Your task to perform on an android device: set the stopwatch Image 0: 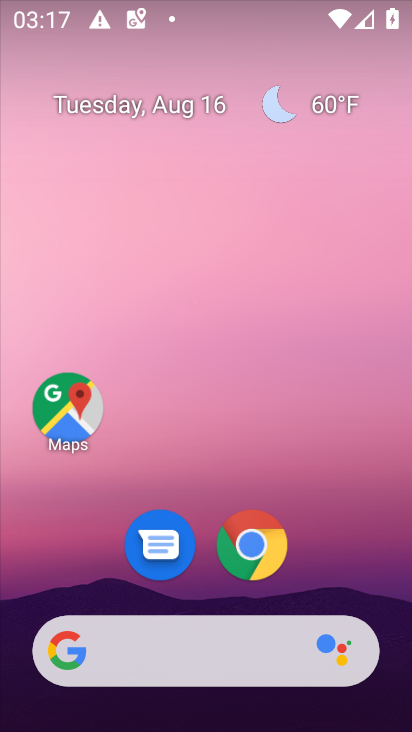
Step 0: drag from (204, 598) to (181, 247)
Your task to perform on an android device: set the stopwatch Image 1: 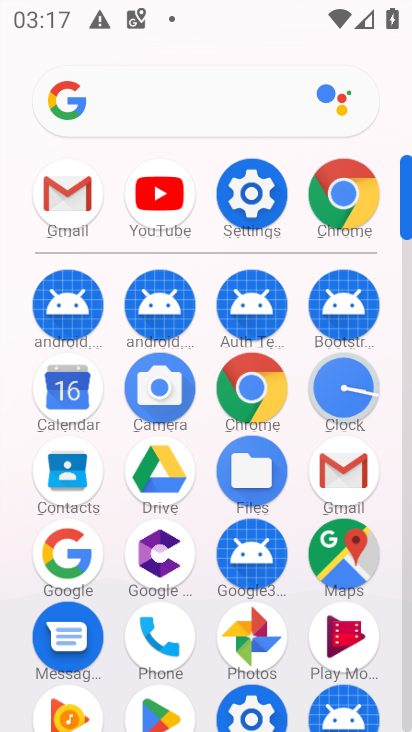
Step 1: click (340, 385)
Your task to perform on an android device: set the stopwatch Image 2: 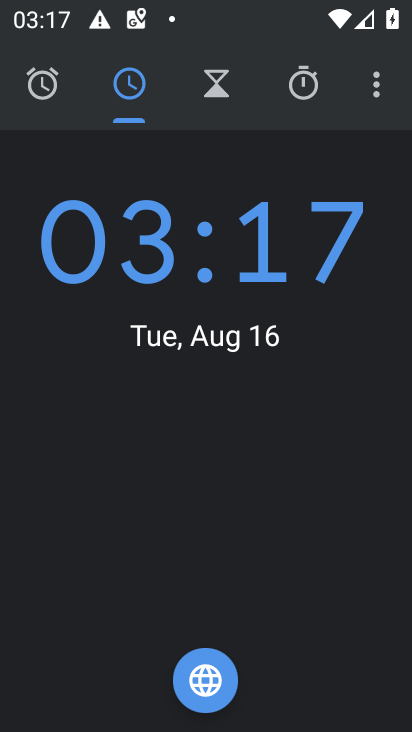
Step 2: click (295, 81)
Your task to perform on an android device: set the stopwatch Image 3: 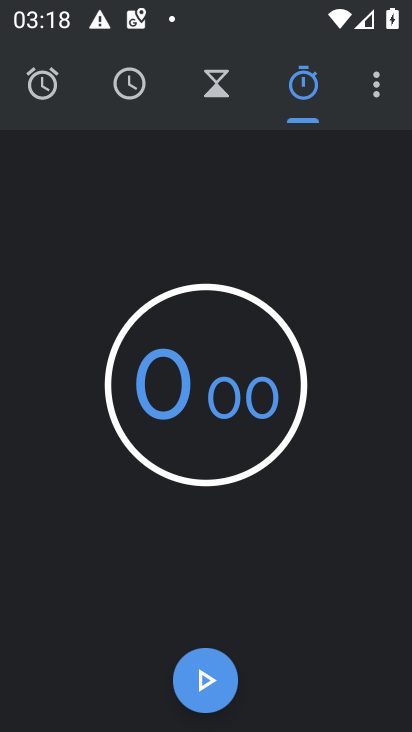
Step 3: click (196, 676)
Your task to perform on an android device: set the stopwatch Image 4: 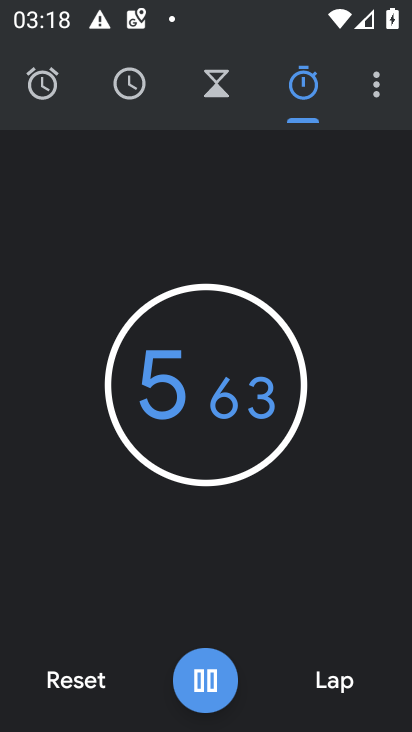
Step 4: click (196, 676)
Your task to perform on an android device: set the stopwatch Image 5: 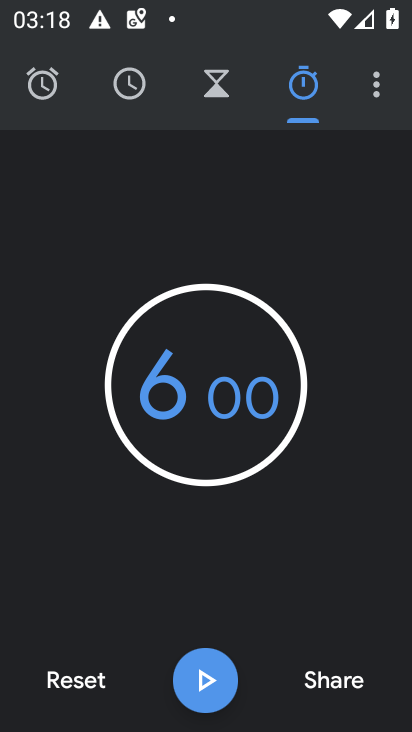
Step 5: task complete